Your task to perform on an android device: turn vacation reply on in the gmail app Image 0: 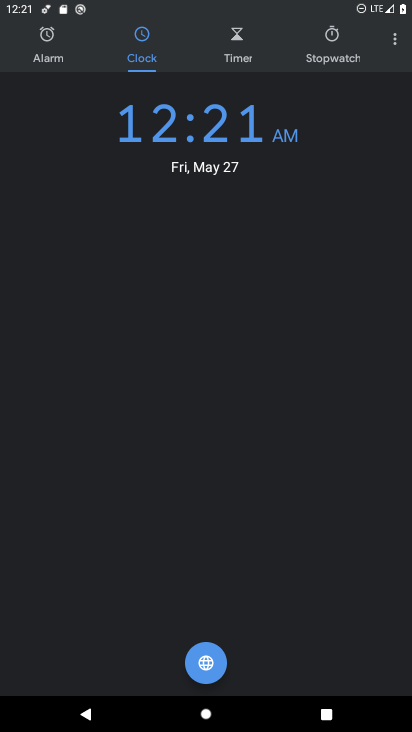
Step 0: press home button
Your task to perform on an android device: turn vacation reply on in the gmail app Image 1: 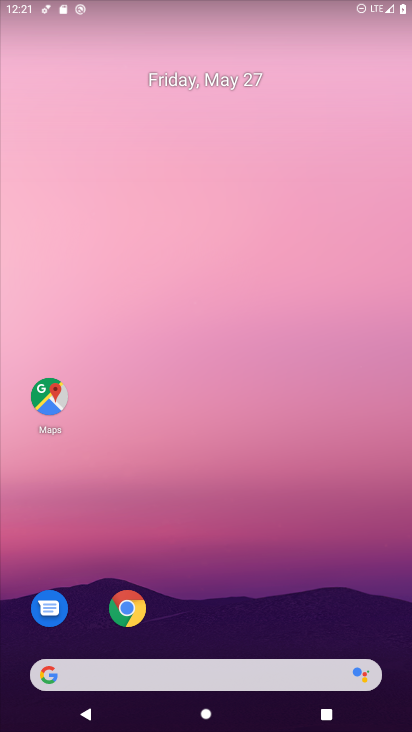
Step 1: drag from (131, 673) to (280, 170)
Your task to perform on an android device: turn vacation reply on in the gmail app Image 2: 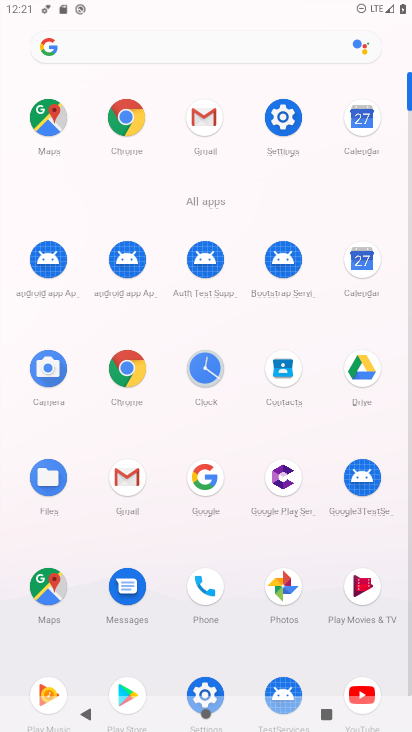
Step 2: click (210, 124)
Your task to perform on an android device: turn vacation reply on in the gmail app Image 3: 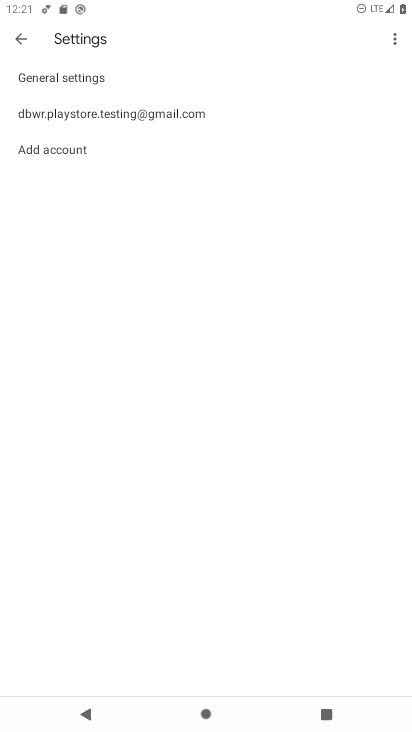
Step 3: click (174, 109)
Your task to perform on an android device: turn vacation reply on in the gmail app Image 4: 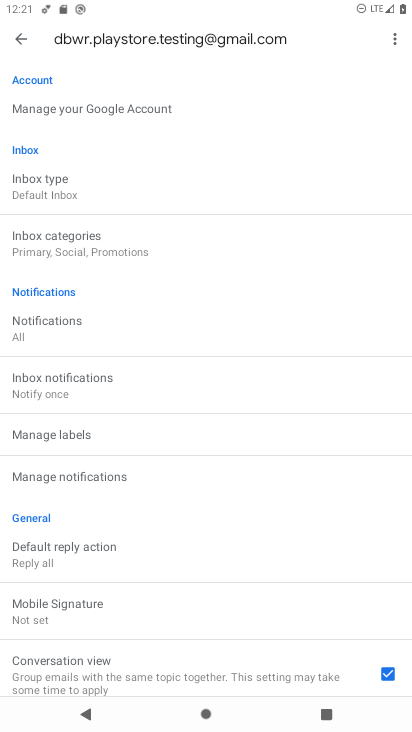
Step 4: drag from (201, 603) to (325, 153)
Your task to perform on an android device: turn vacation reply on in the gmail app Image 5: 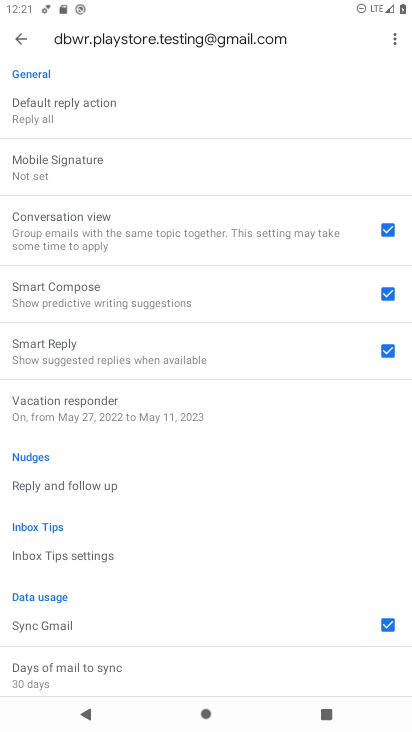
Step 5: click (117, 412)
Your task to perform on an android device: turn vacation reply on in the gmail app Image 6: 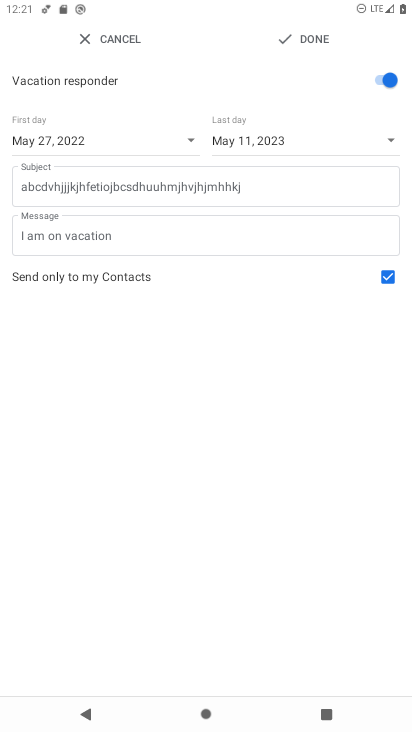
Step 6: task complete